Your task to perform on an android device: change alarm snooze length Image 0: 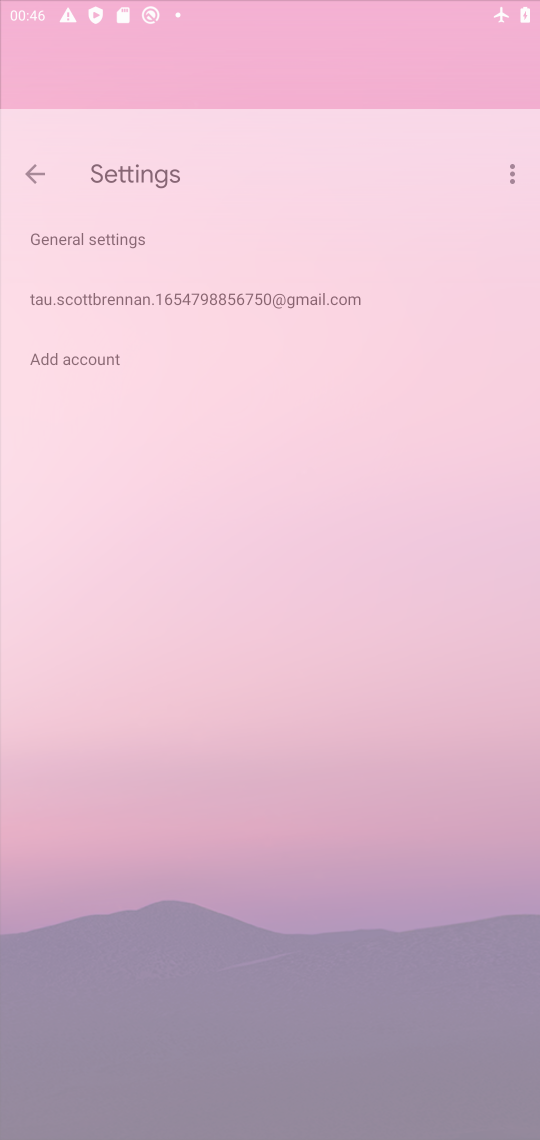
Step 0: press home button
Your task to perform on an android device: change alarm snooze length Image 1: 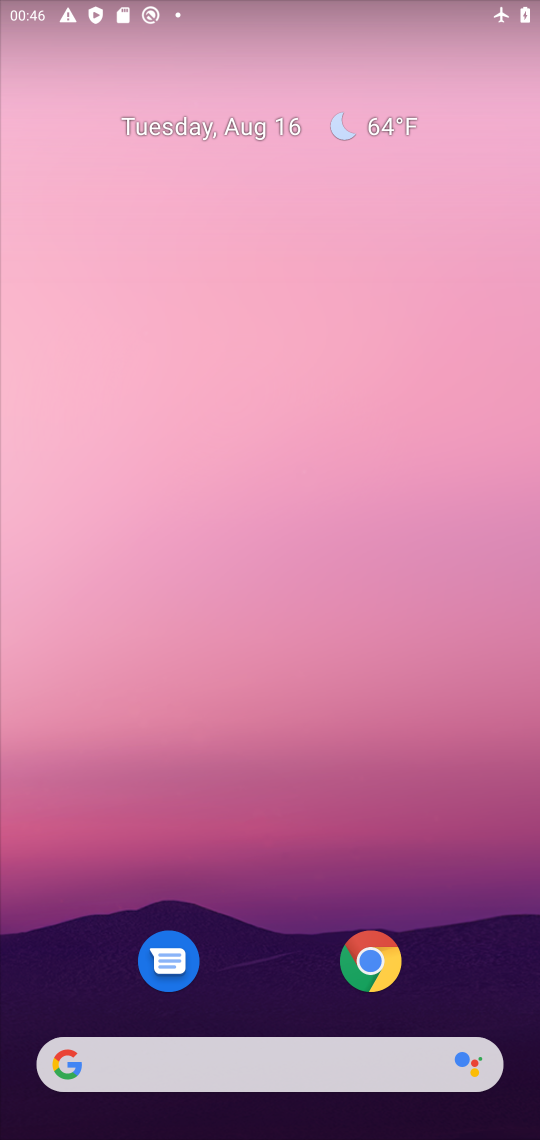
Step 1: drag from (433, 901) to (341, 185)
Your task to perform on an android device: change alarm snooze length Image 2: 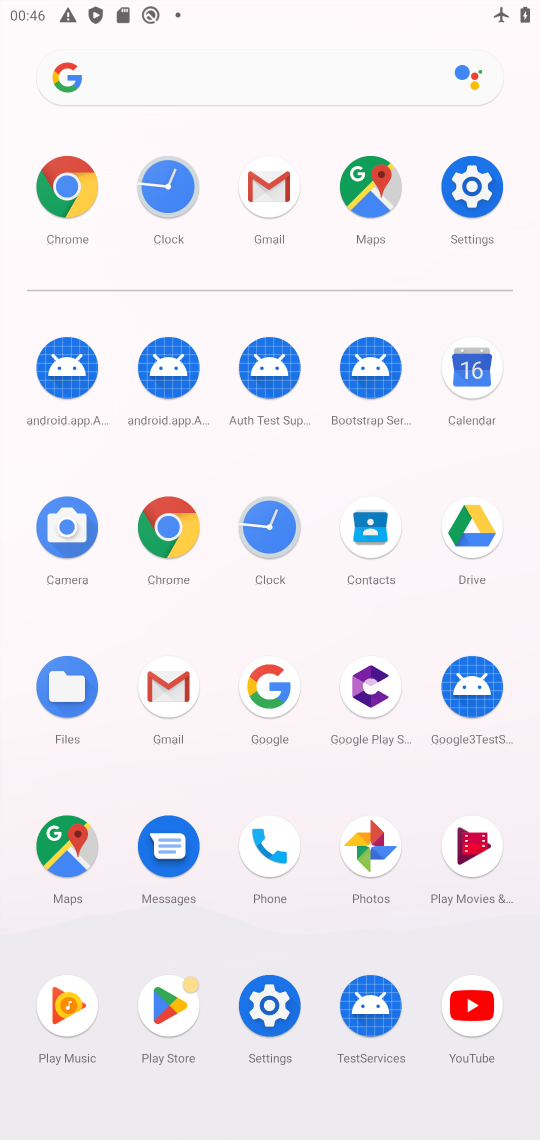
Step 2: click (288, 518)
Your task to perform on an android device: change alarm snooze length Image 3: 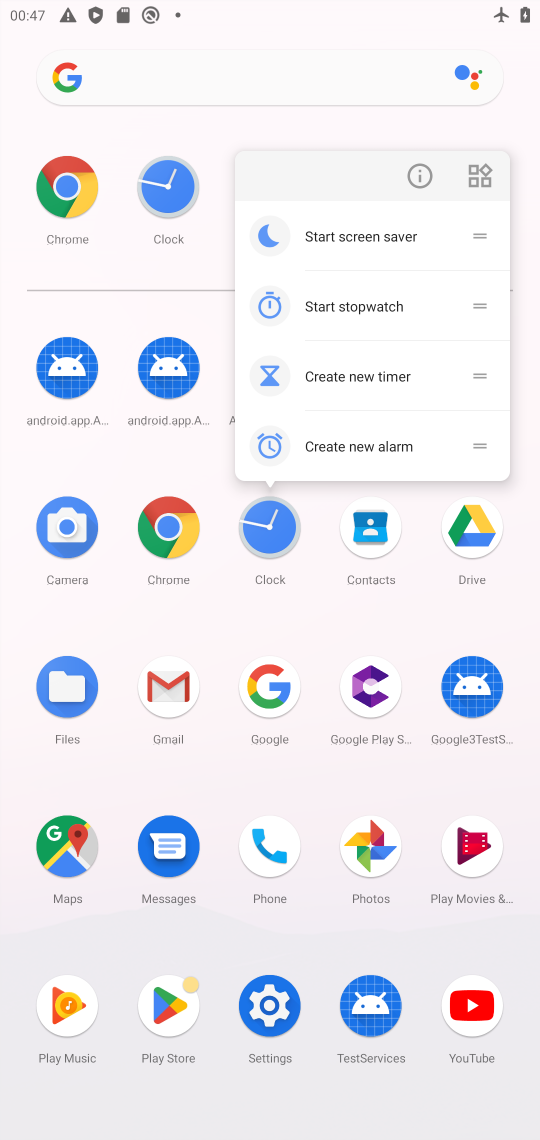
Step 3: click (286, 523)
Your task to perform on an android device: change alarm snooze length Image 4: 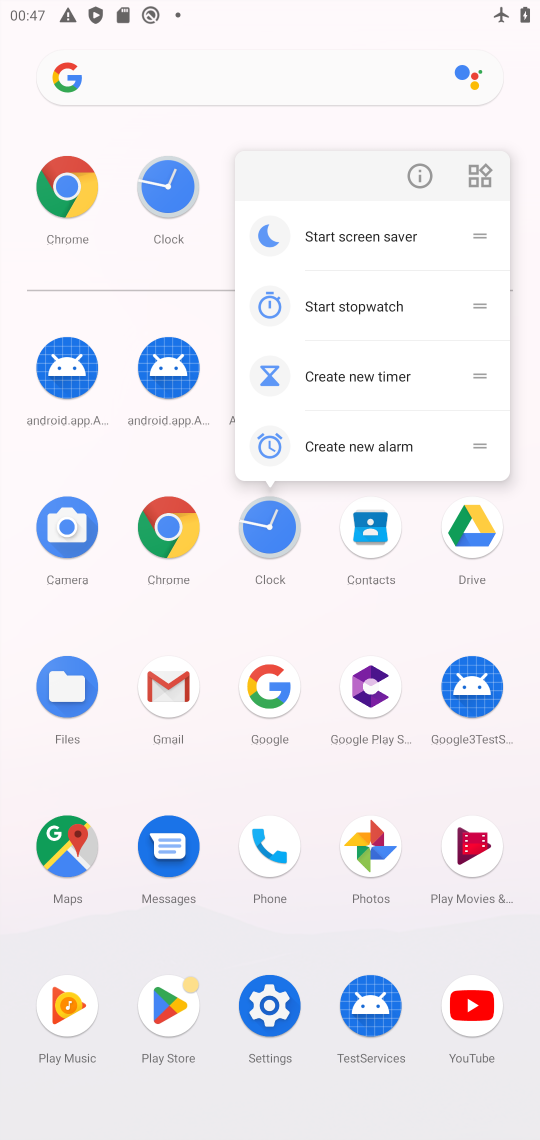
Step 4: click (270, 531)
Your task to perform on an android device: change alarm snooze length Image 5: 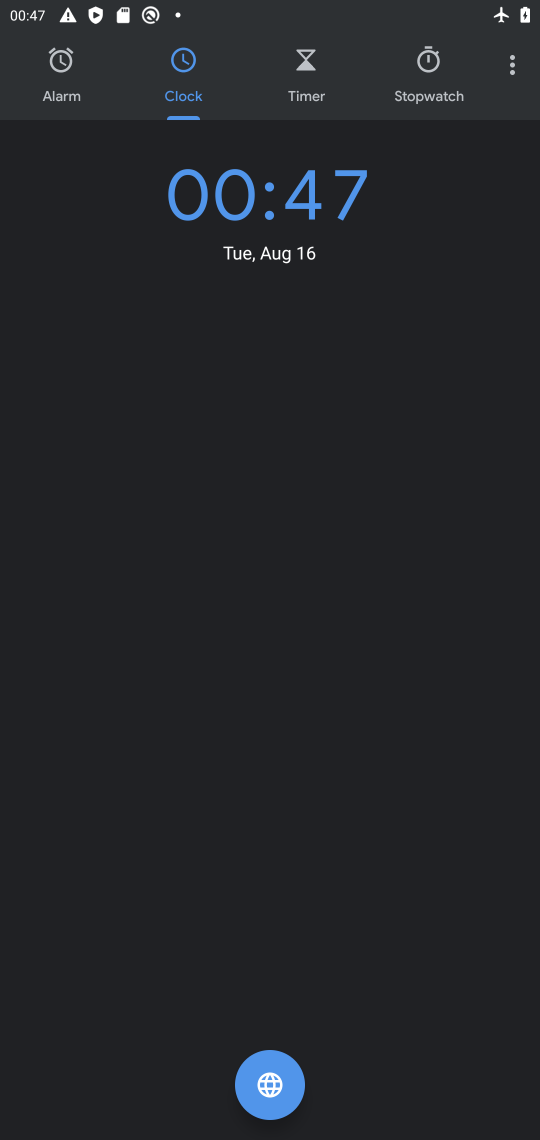
Step 5: click (498, 49)
Your task to perform on an android device: change alarm snooze length Image 6: 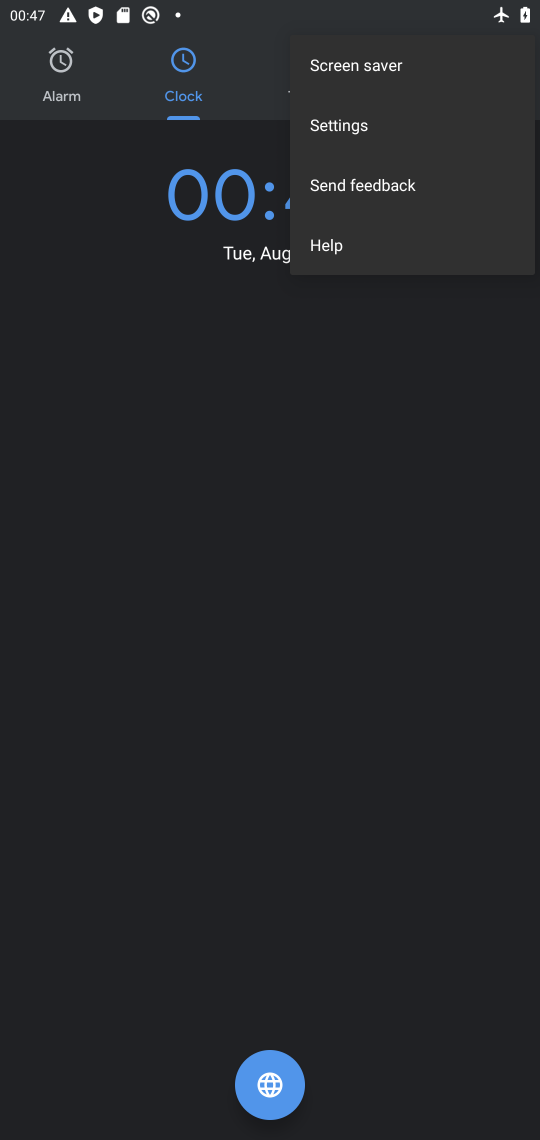
Step 6: click (358, 122)
Your task to perform on an android device: change alarm snooze length Image 7: 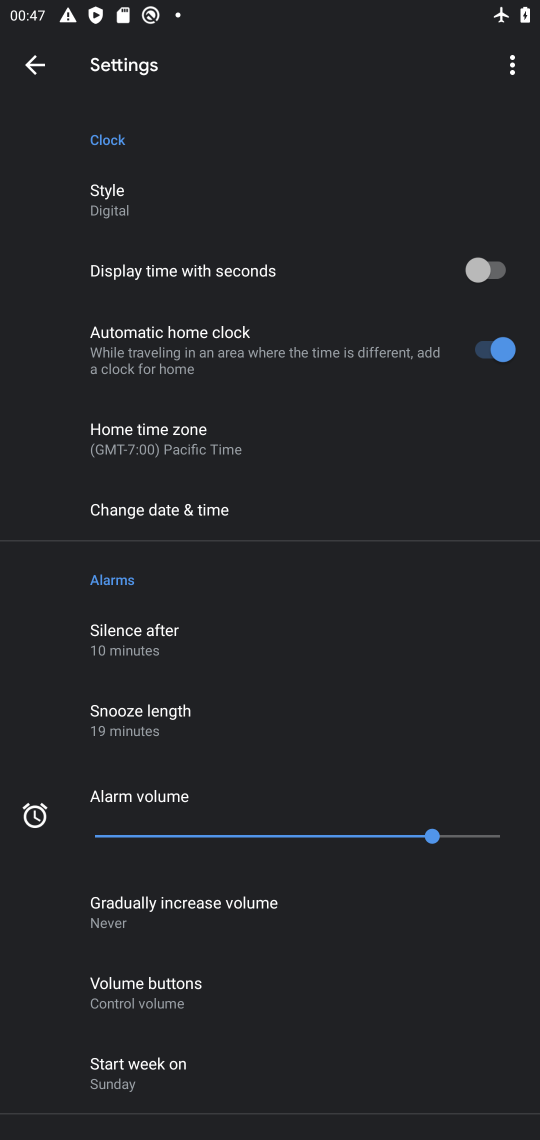
Step 7: click (116, 725)
Your task to perform on an android device: change alarm snooze length Image 8: 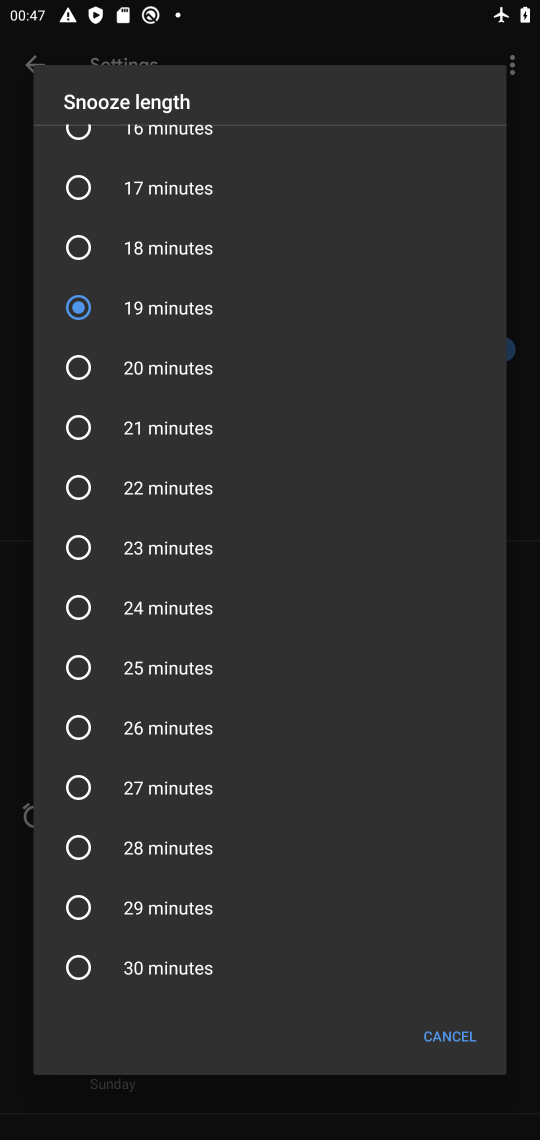
Step 8: click (169, 556)
Your task to perform on an android device: change alarm snooze length Image 9: 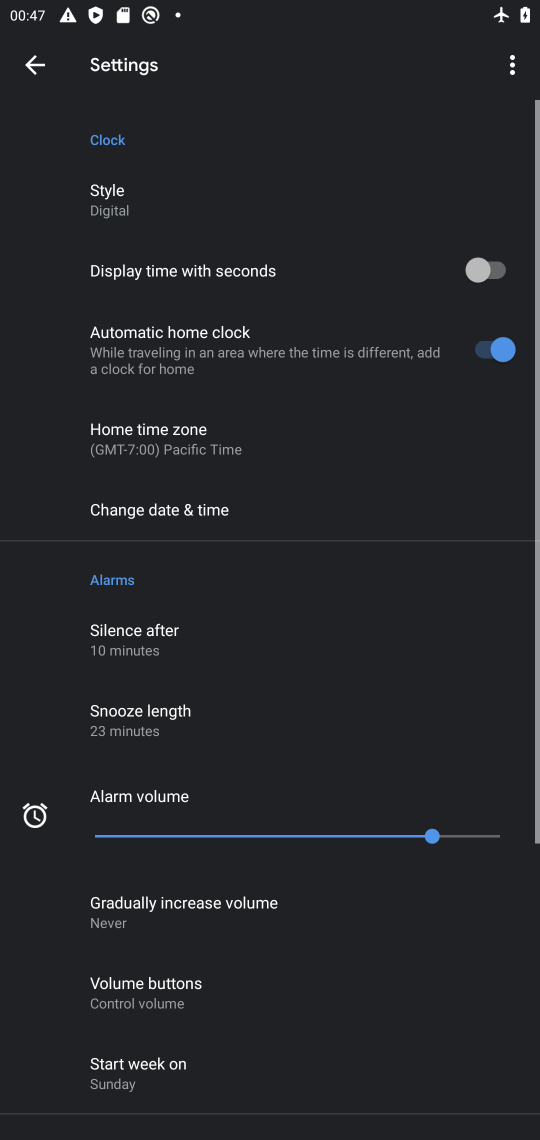
Step 9: task complete